Your task to perform on an android device: set default search engine in the chrome app Image 0: 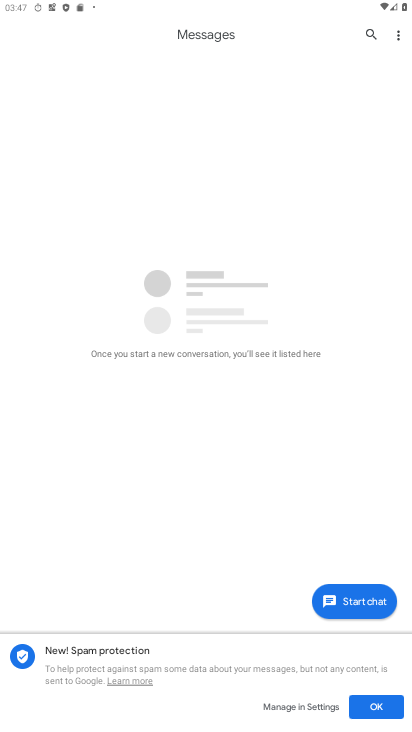
Step 0: press home button
Your task to perform on an android device: set default search engine in the chrome app Image 1: 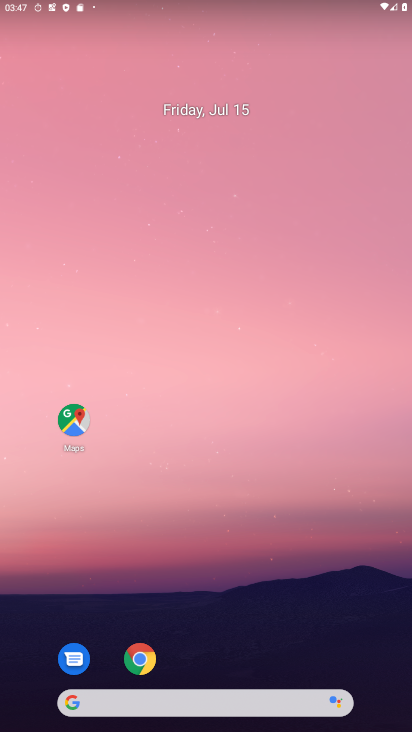
Step 1: click (128, 659)
Your task to perform on an android device: set default search engine in the chrome app Image 2: 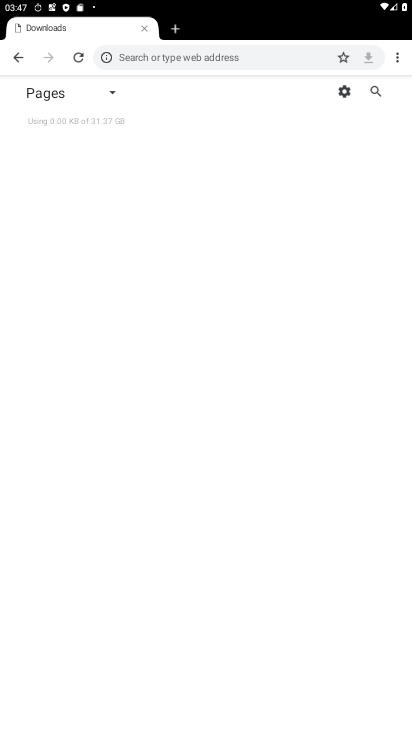
Step 2: click (401, 55)
Your task to perform on an android device: set default search engine in the chrome app Image 3: 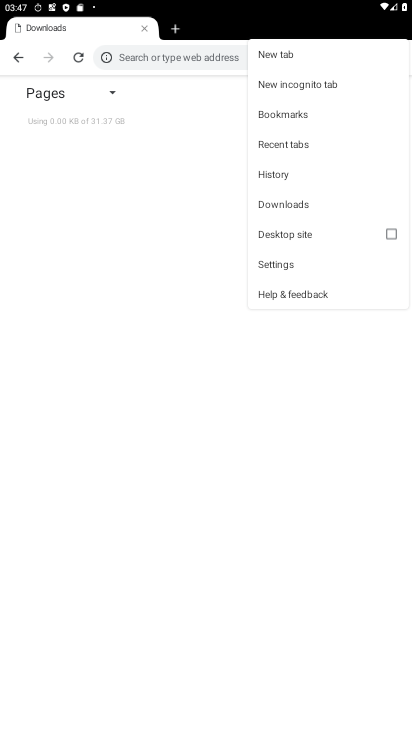
Step 3: click (272, 261)
Your task to perform on an android device: set default search engine in the chrome app Image 4: 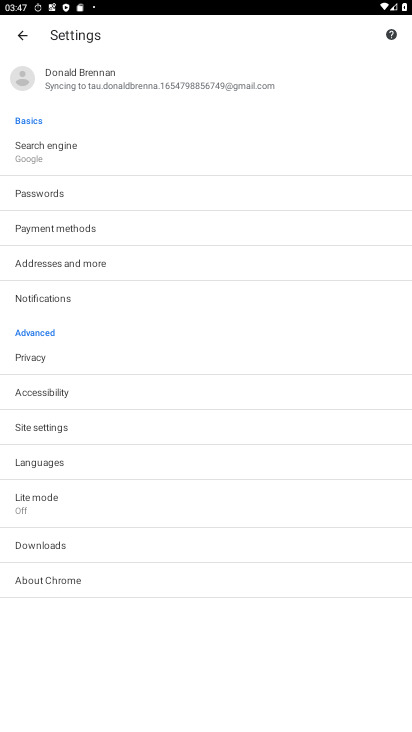
Step 4: click (56, 158)
Your task to perform on an android device: set default search engine in the chrome app Image 5: 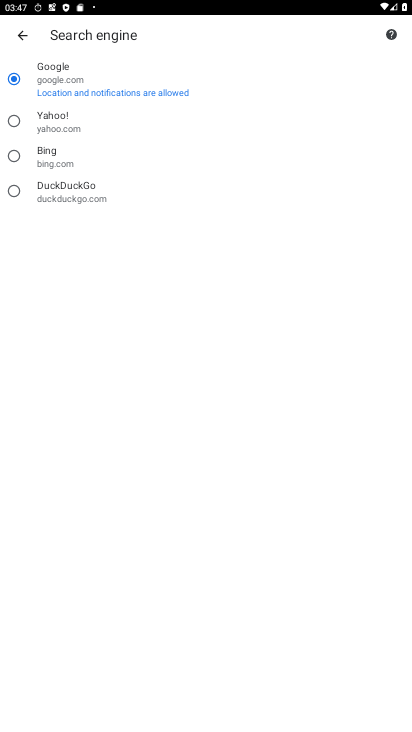
Step 5: click (65, 123)
Your task to perform on an android device: set default search engine in the chrome app Image 6: 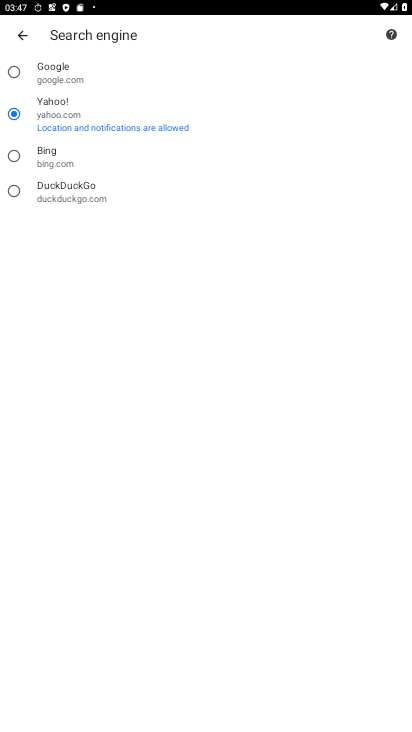
Step 6: task complete